Your task to perform on an android device: turn vacation reply on in the gmail app Image 0: 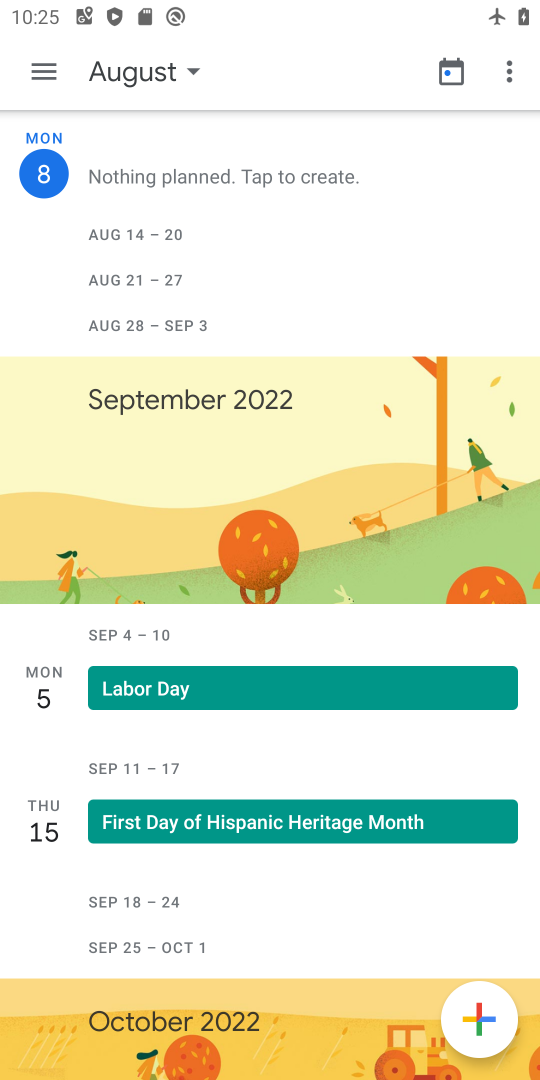
Step 0: press home button
Your task to perform on an android device: turn vacation reply on in the gmail app Image 1: 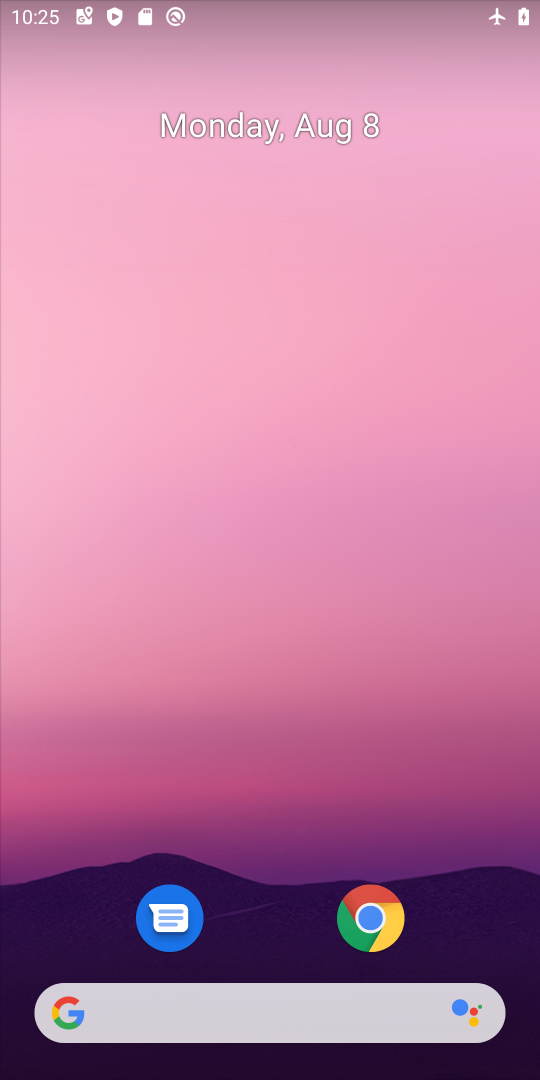
Step 1: drag from (240, 949) to (137, 19)
Your task to perform on an android device: turn vacation reply on in the gmail app Image 2: 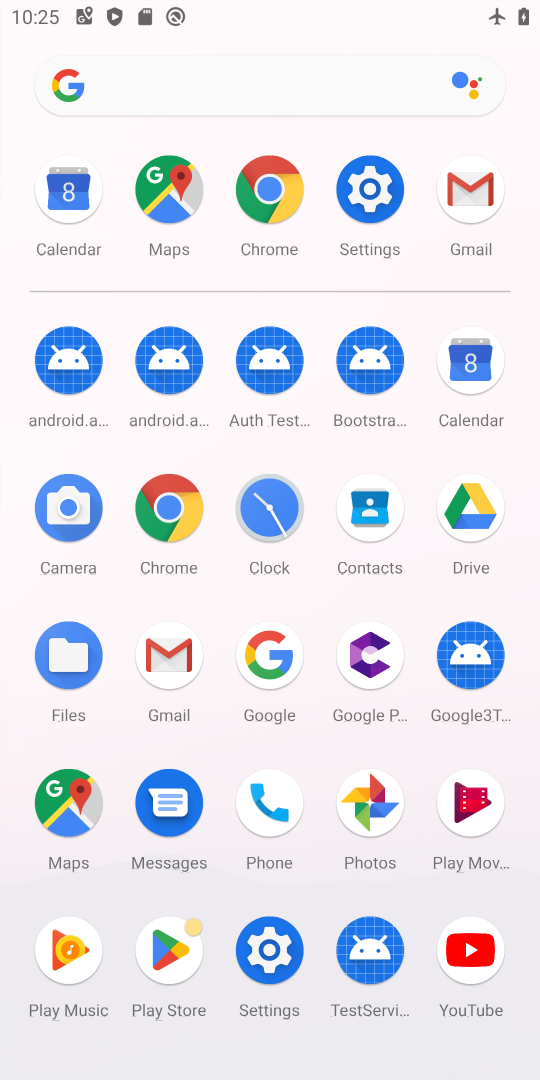
Step 2: click (188, 653)
Your task to perform on an android device: turn vacation reply on in the gmail app Image 3: 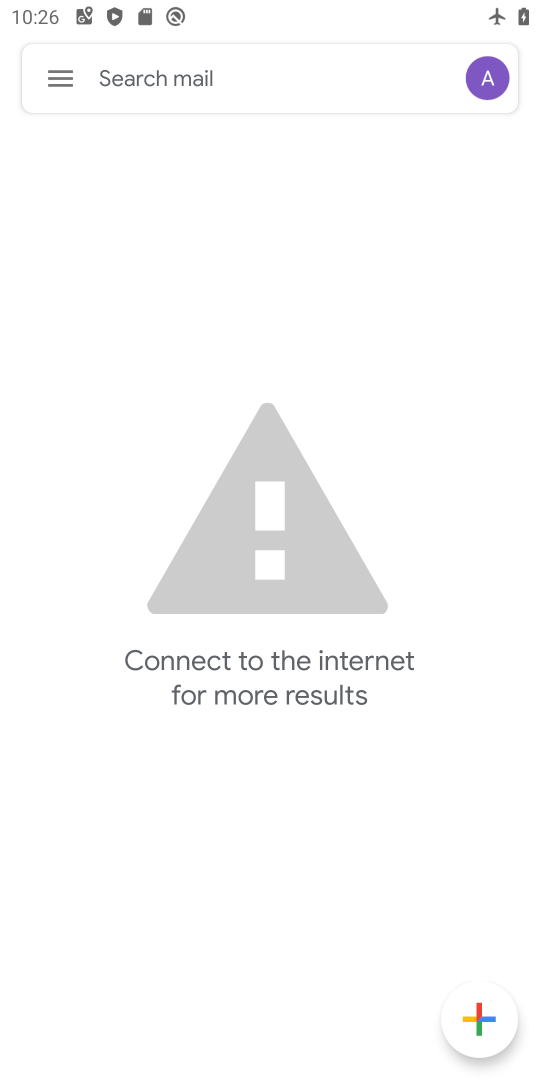
Step 3: click (38, 74)
Your task to perform on an android device: turn vacation reply on in the gmail app Image 4: 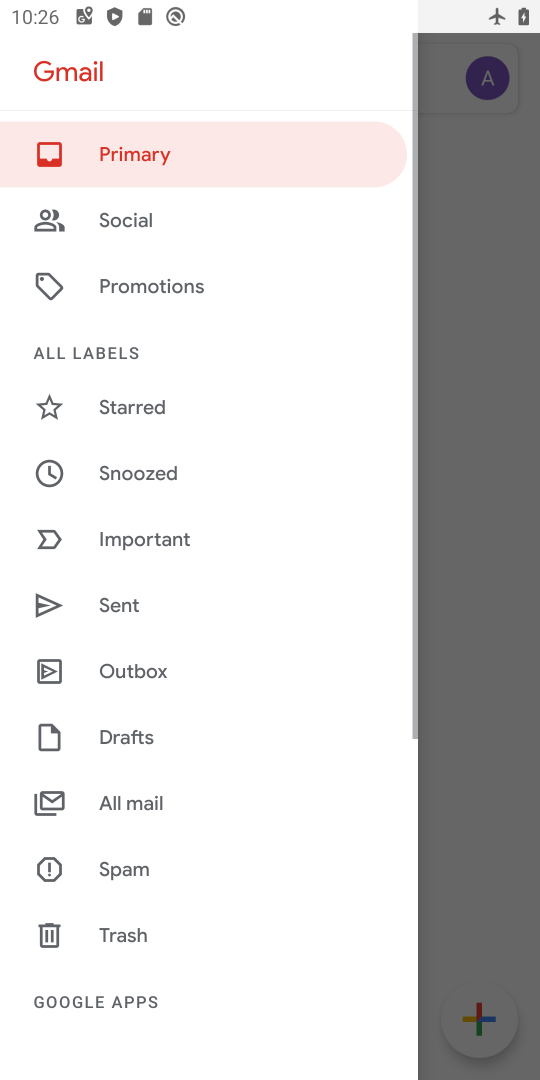
Step 4: drag from (102, 817) to (109, 167)
Your task to perform on an android device: turn vacation reply on in the gmail app Image 5: 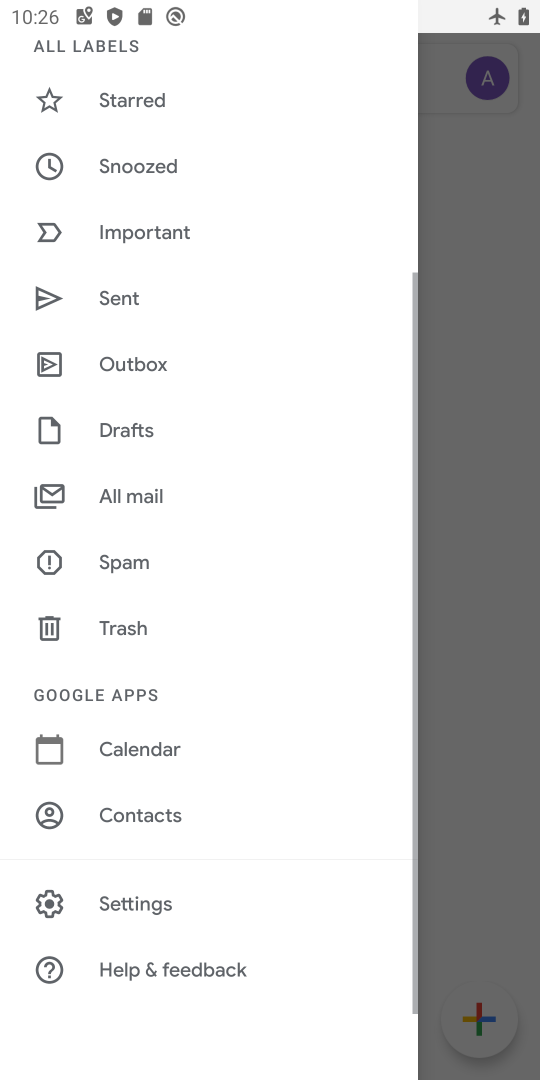
Step 5: click (113, 897)
Your task to perform on an android device: turn vacation reply on in the gmail app Image 6: 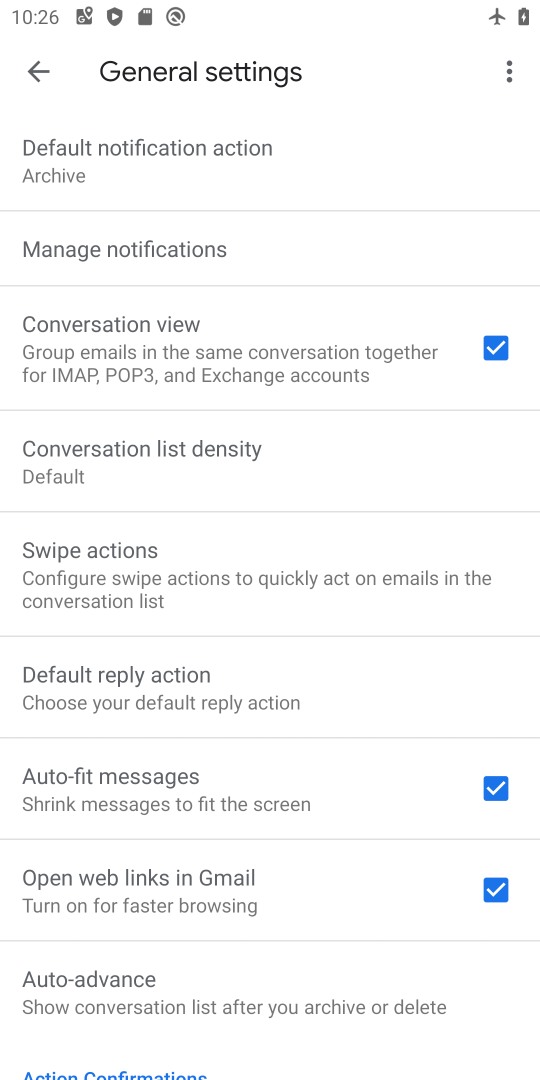
Step 6: click (116, 272)
Your task to perform on an android device: turn vacation reply on in the gmail app Image 7: 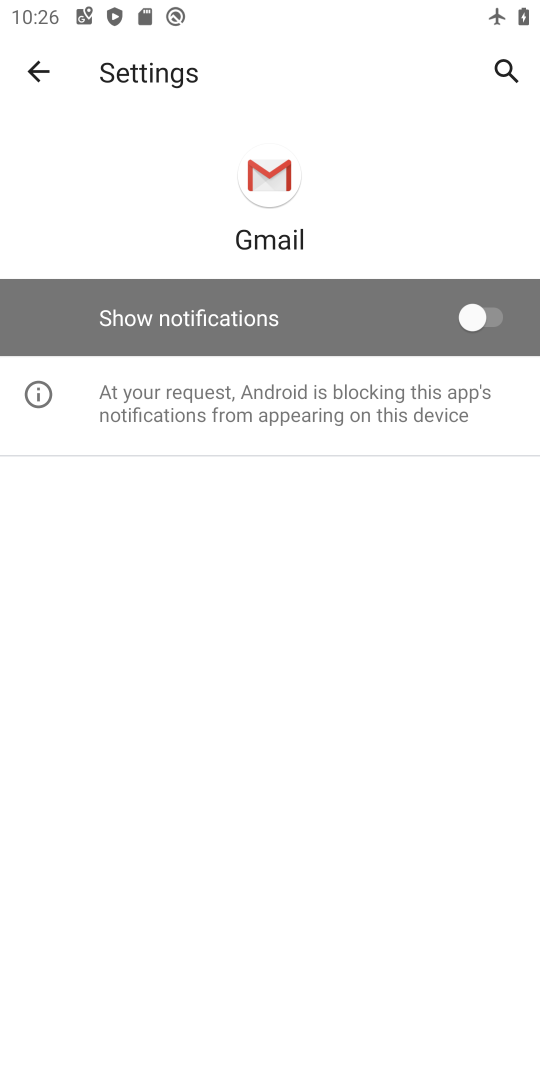
Step 7: click (45, 73)
Your task to perform on an android device: turn vacation reply on in the gmail app Image 8: 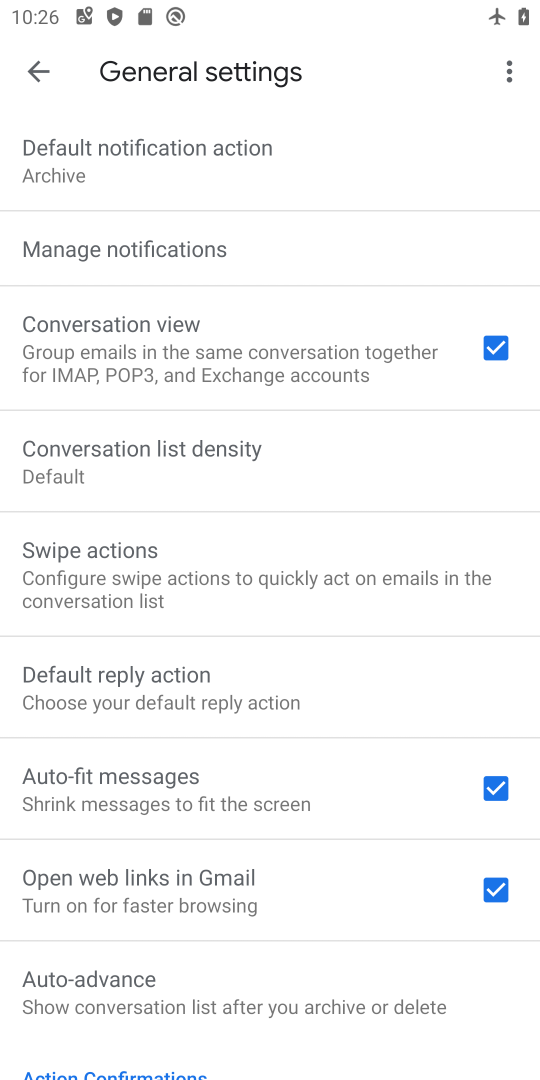
Step 8: click (41, 70)
Your task to perform on an android device: turn vacation reply on in the gmail app Image 9: 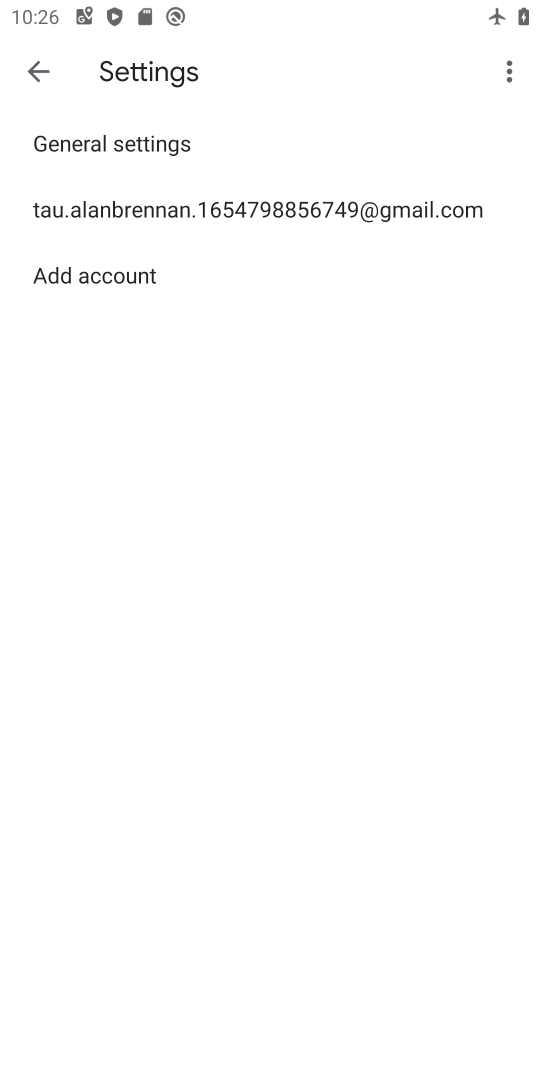
Step 9: click (110, 199)
Your task to perform on an android device: turn vacation reply on in the gmail app Image 10: 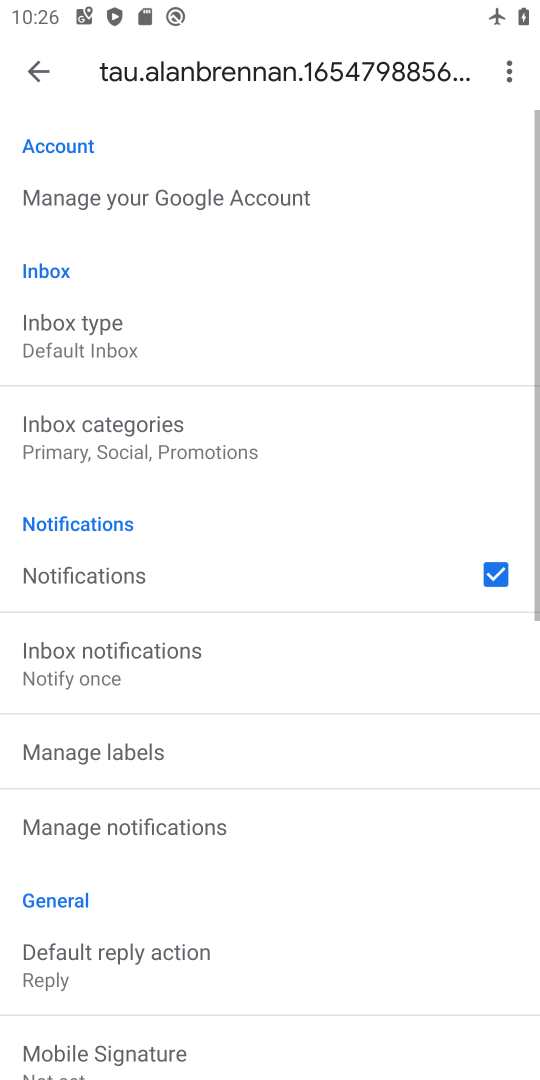
Step 10: drag from (276, 897) to (271, 238)
Your task to perform on an android device: turn vacation reply on in the gmail app Image 11: 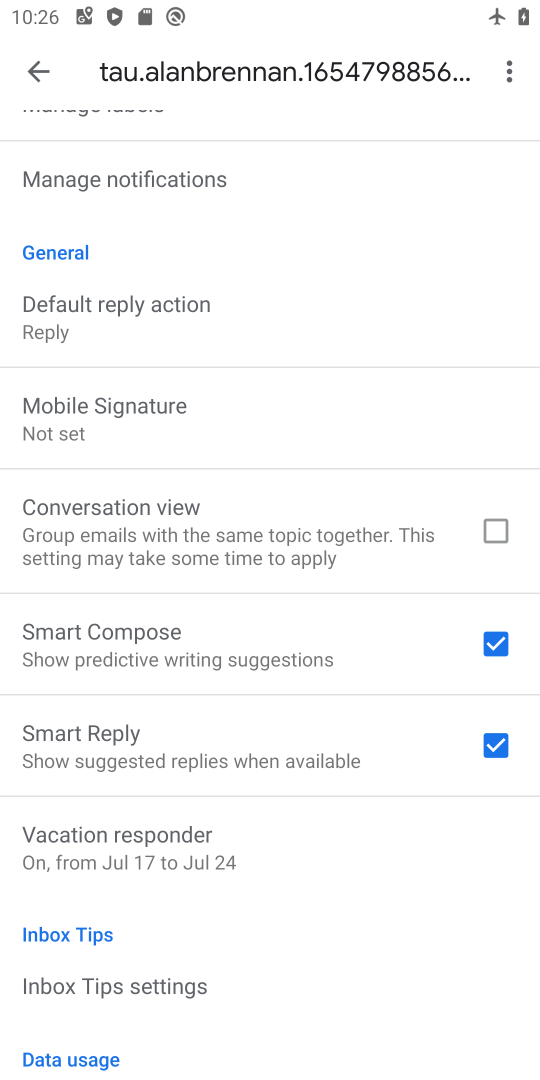
Step 11: drag from (341, 882) to (299, 250)
Your task to perform on an android device: turn vacation reply on in the gmail app Image 12: 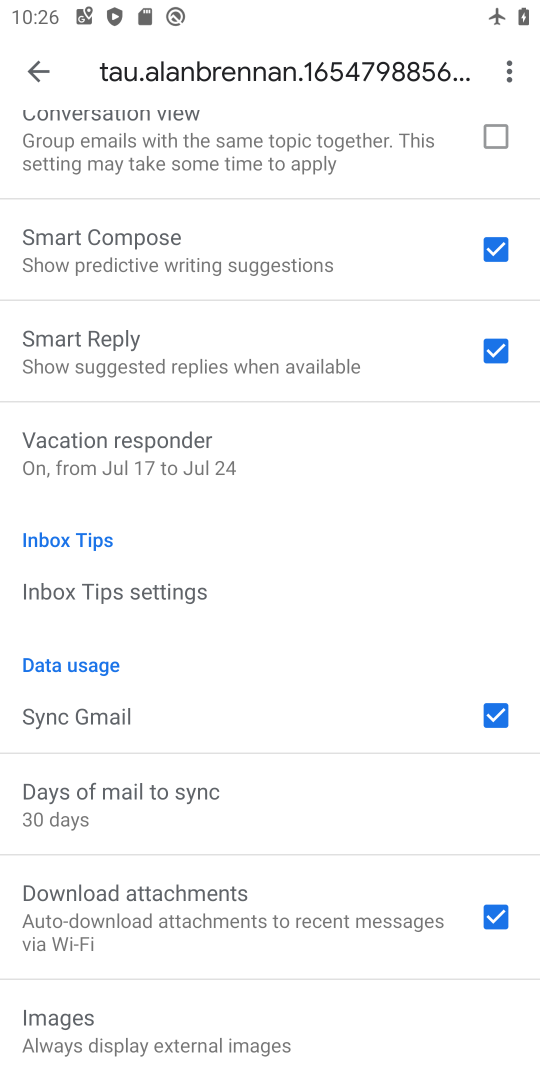
Step 12: click (208, 450)
Your task to perform on an android device: turn vacation reply on in the gmail app Image 13: 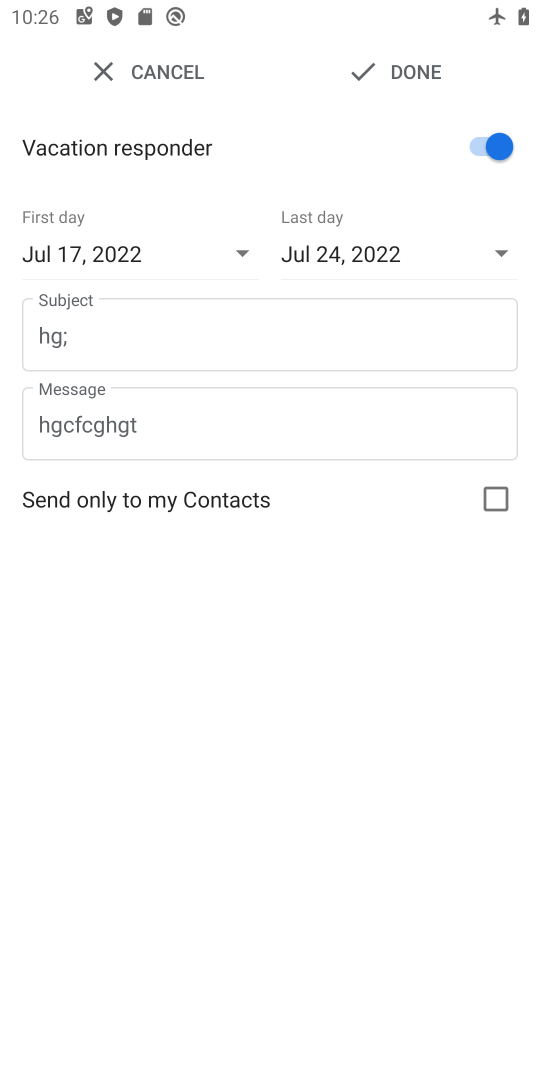
Step 13: click (412, 75)
Your task to perform on an android device: turn vacation reply on in the gmail app Image 14: 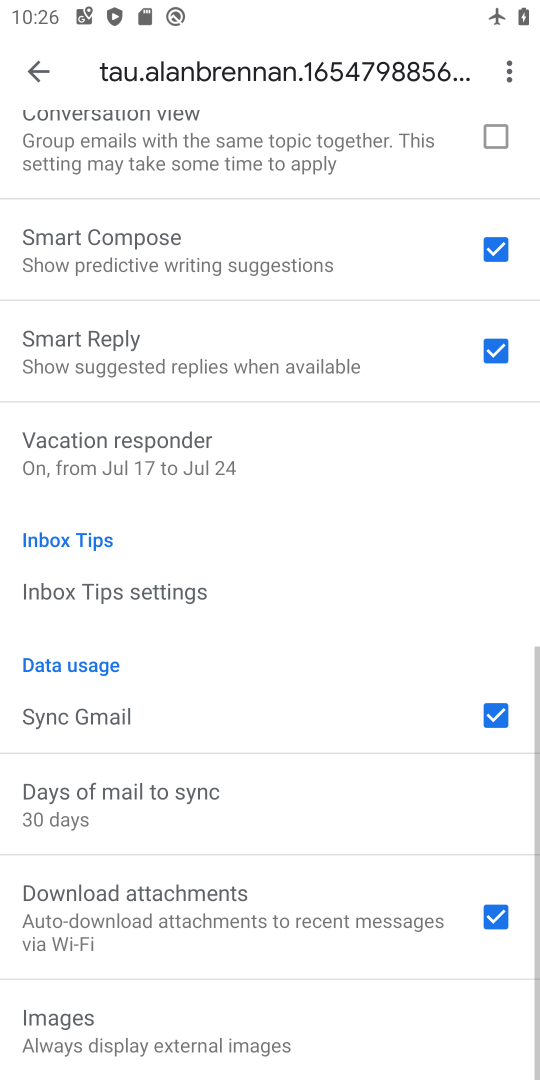
Step 14: task complete